Your task to perform on an android device: check storage Image 0: 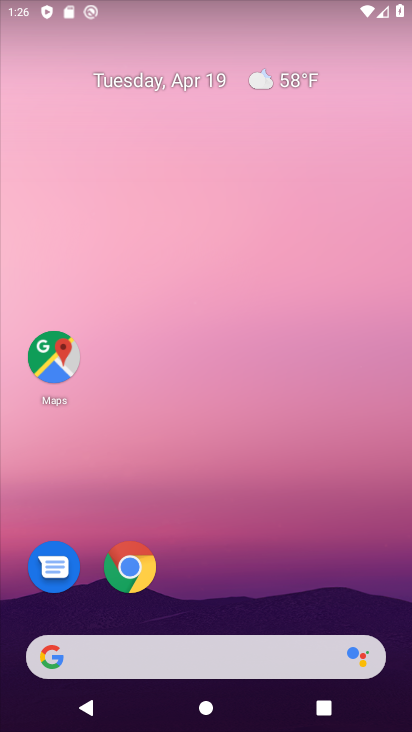
Step 0: drag from (297, 563) to (267, 112)
Your task to perform on an android device: check storage Image 1: 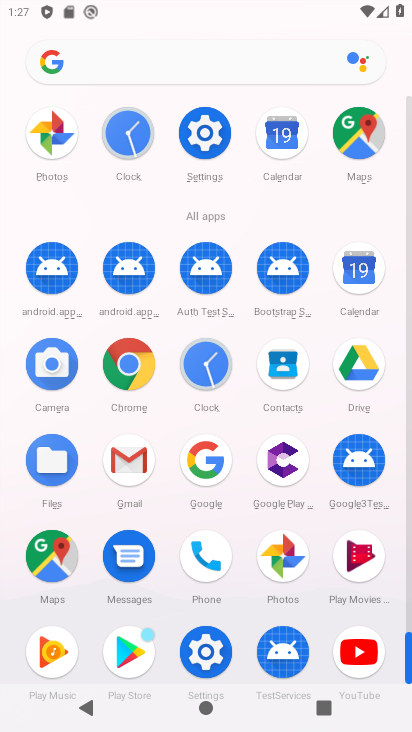
Step 1: click (214, 147)
Your task to perform on an android device: check storage Image 2: 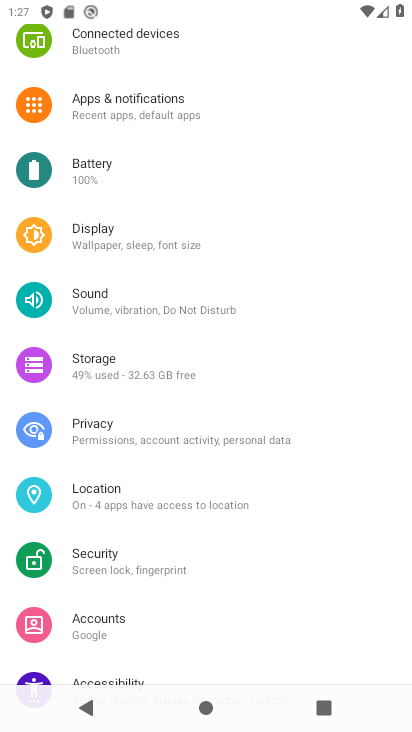
Step 2: click (118, 379)
Your task to perform on an android device: check storage Image 3: 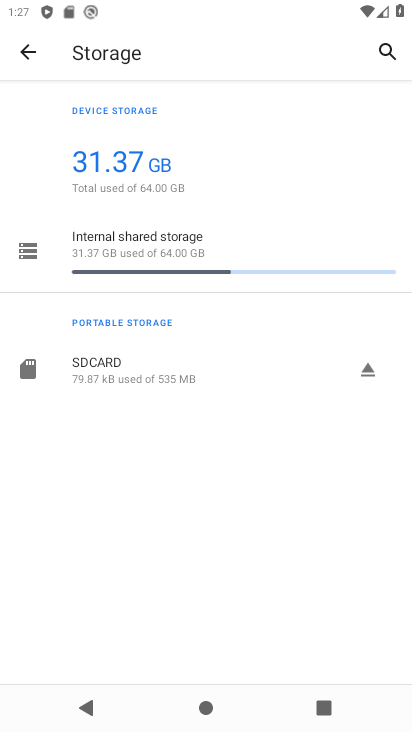
Step 3: task complete